Your task to perform on an android device: Go to Yahoo.com Image 0: 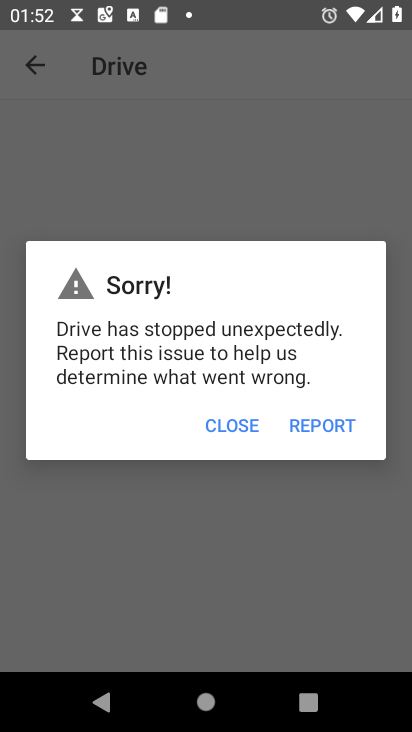
Step 0: click (251, 416)
Your task to perform on an android device: Go to Yahoo.com Image 1: 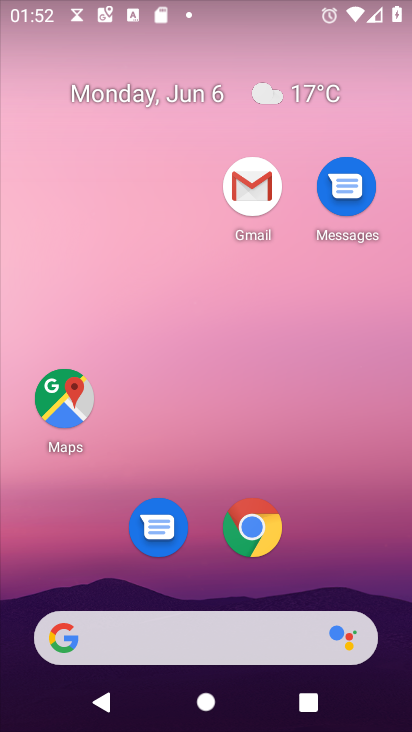
Step 1: drag from (304, 582) to (280, 166)
Your task to perform on an android device: Go to Yahoo.com Image 2: 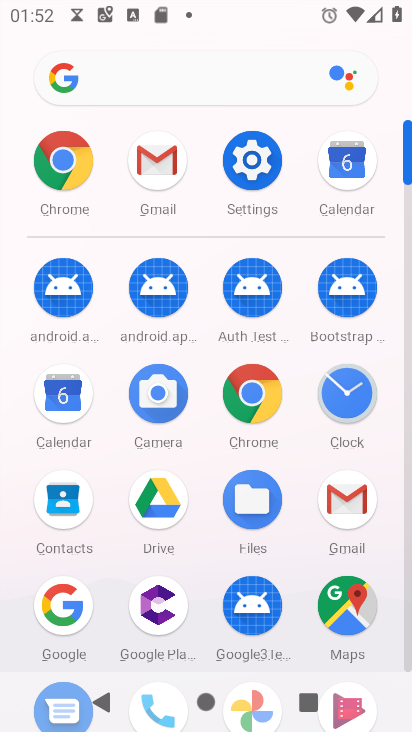
Step 2: click (269, 390)
Your task to perform on an android device: Go to Yahoo.com Image 3: 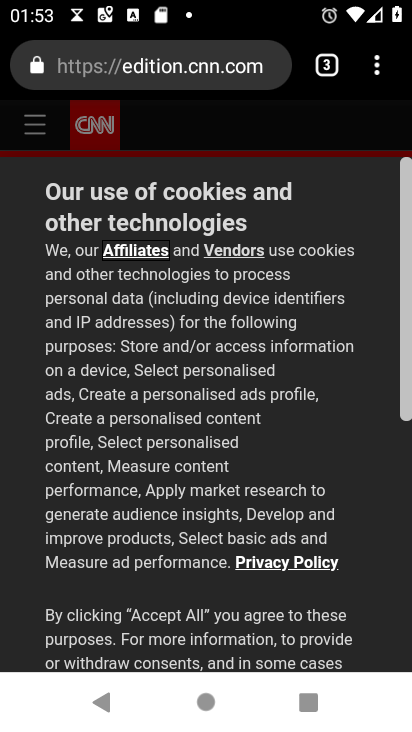
Step 3: click (225, 61)
Your task to perform on an android device: Go to Yahoo.com Image 4: 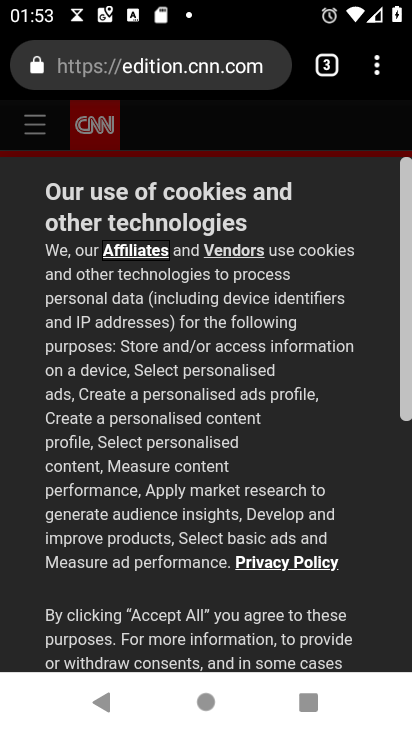
Step 4: click (225, 61)
Your task to perform on an android device: Go to Yahoo.com Image 5: 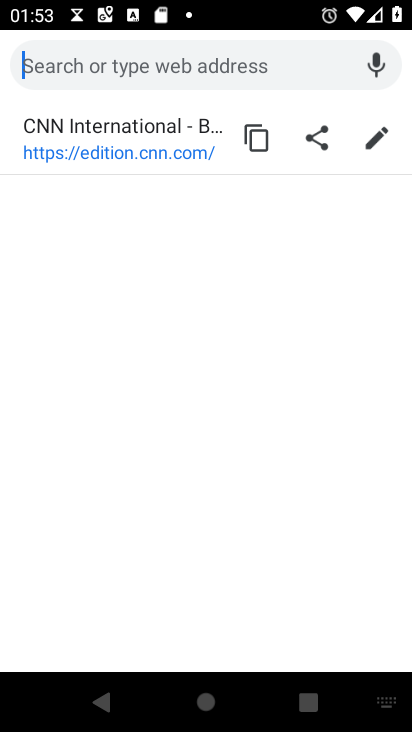
Step 5: type "yzahoo.com"
Your task to perform on an android device: Go to Yahoo.com Image 6: 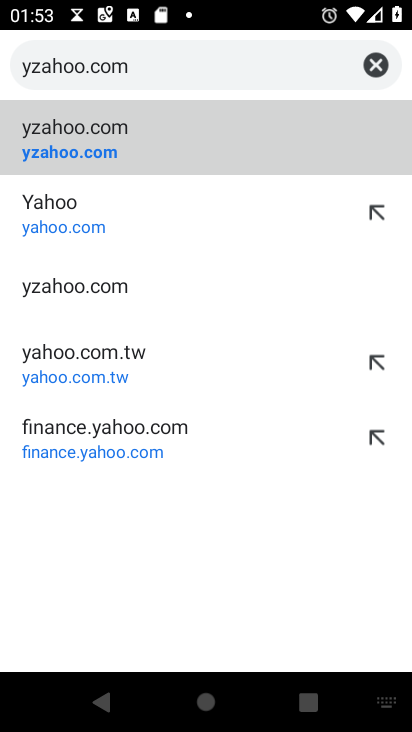
Step 6: click (96, 206)
Your task to perform on an android device: Go to Yahoo.com Image 7: 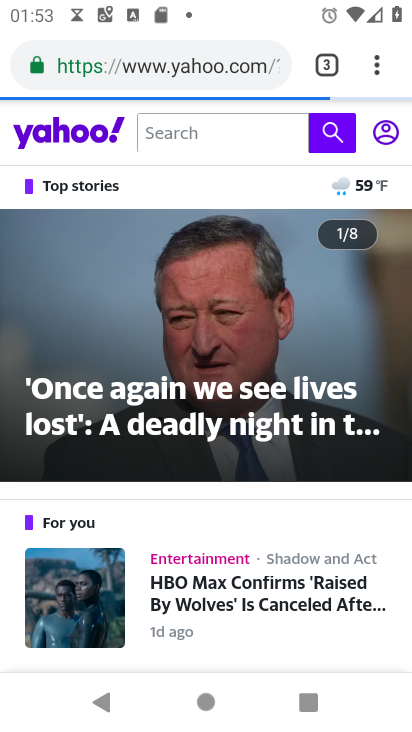
Step 7: task complete